Your task to perform on an android device: check data usage Image 0: 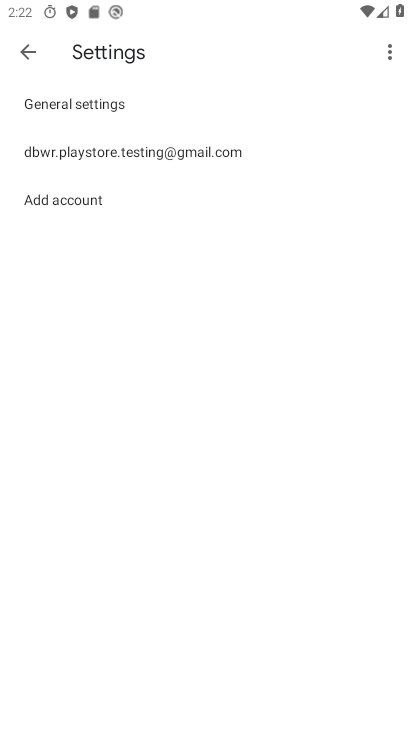
Step 0: press home button
Your task to perform on an android device: check data usage Image 1: 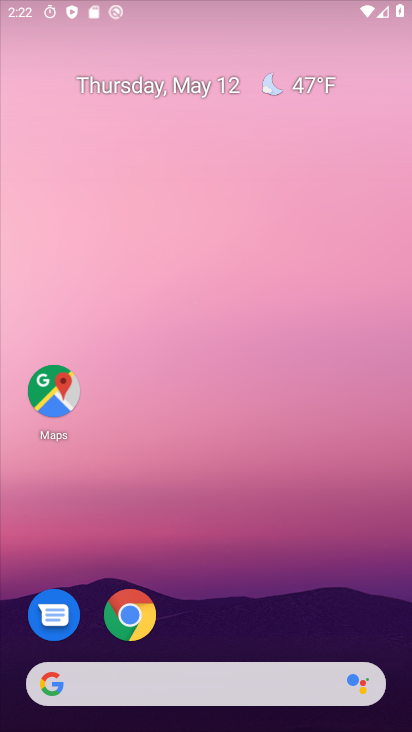
Step 1: drag from (226, 595) to (278, 38)
Your task to perform on an android device: check data usage Image 2: 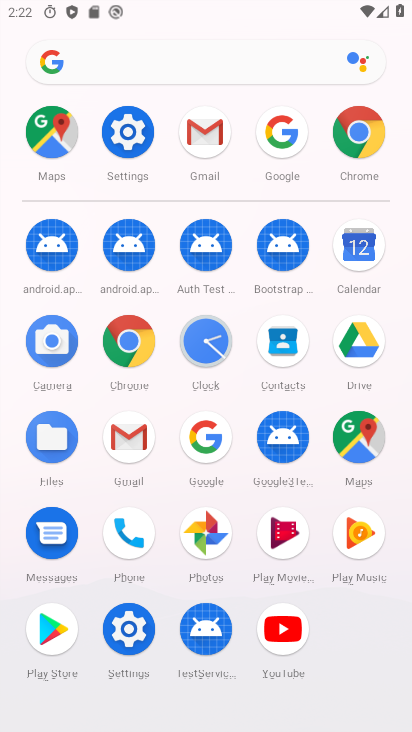
Step 2: click (131, 132)
Your task to perform on an android device: check data usage Image 3: 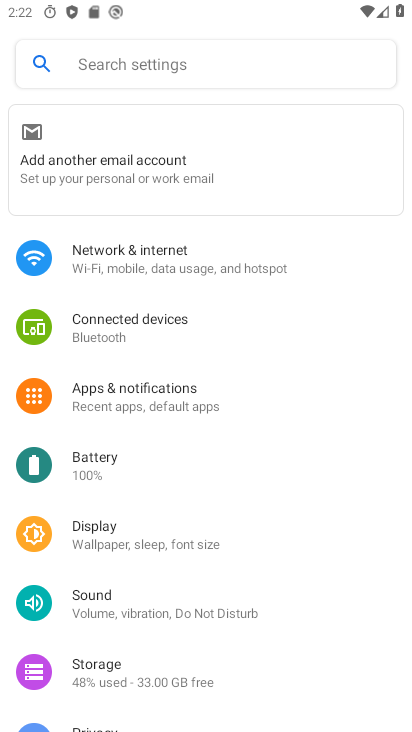
Step 3: click (172, 279)
Your task to perform on an android device: check data usage Image 4: 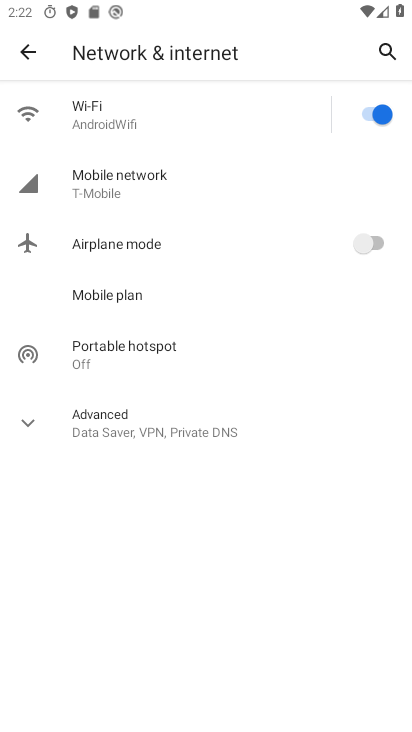
Step 4: click (183, 186)
Your task to perform on an android device: check data usage Image 5: 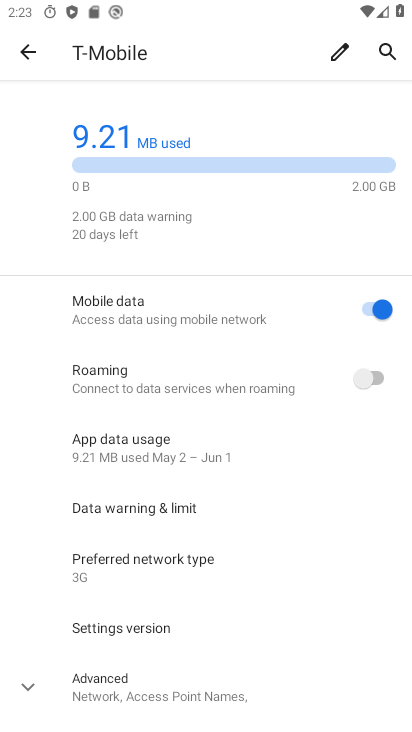
Step 5: task complete